Your task to perform on an android device: clear history in the chrome app Image 0: 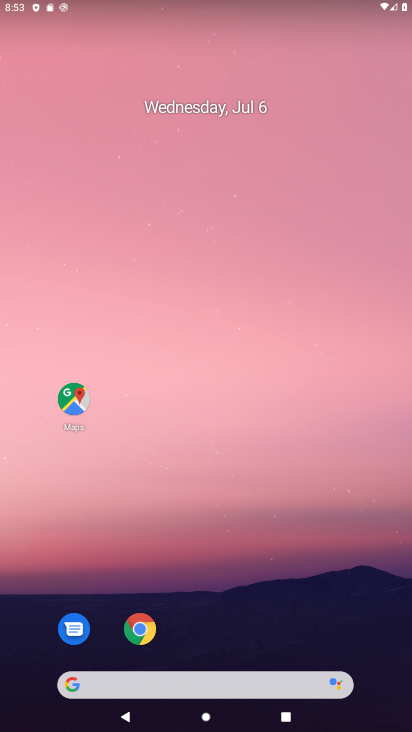
Step 0: drag from (244, 611) to (248, 176)
Your task to perform on an android device: clear history in the chrome app Image 1: 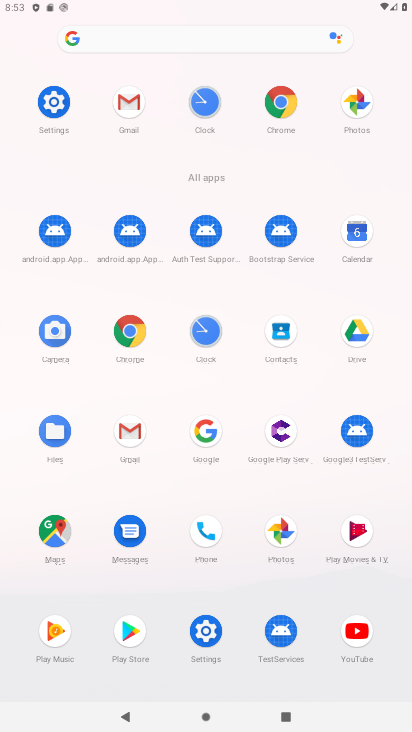
Step 1: click (133, 332)
Your task to perform on an android device: clear history in the chrome app Image 2: 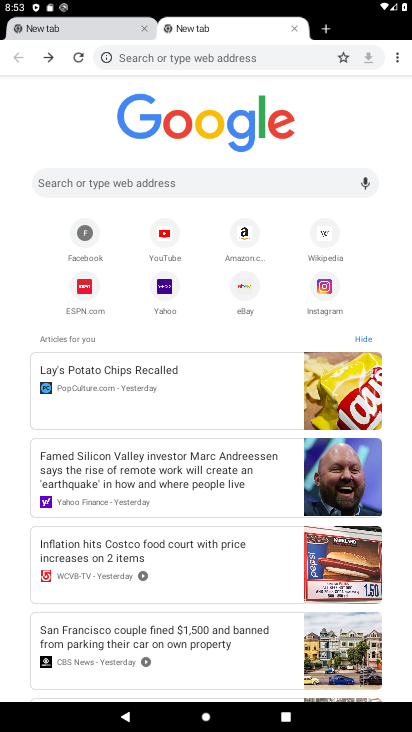
Step 2: click (397, 56)
Your task to perform on an android device: clear history in the chrome app Image 3: 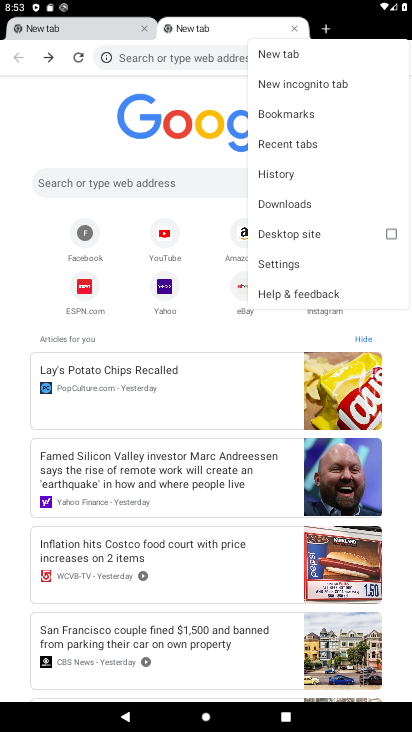
Step 3: click (288, 174)
Your task to perform on an android device: clear history in the chrome app Image 4: 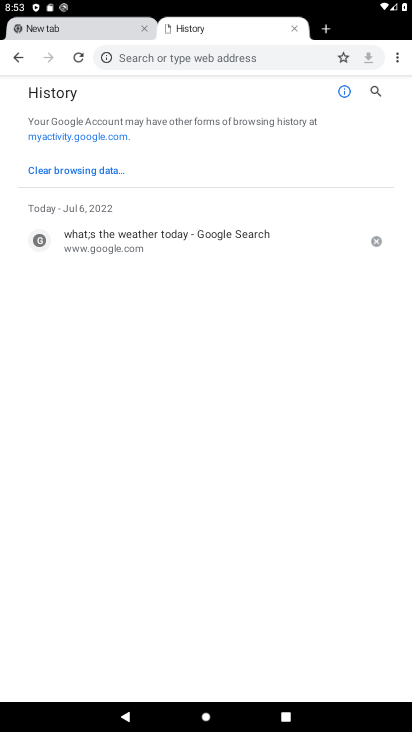
Step 4: click (78, 173)
Your task to perform on an android device: clear history in the chrome app Image 5: 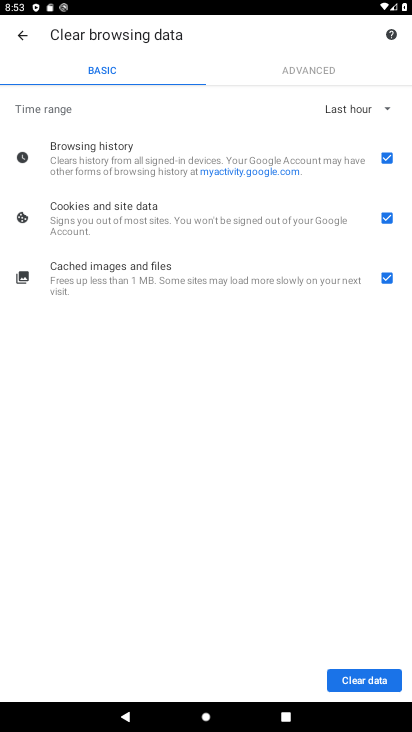
Step 5: click (387, 209)
Your task to perform on an android device: clear history in the chrome app Image 6: 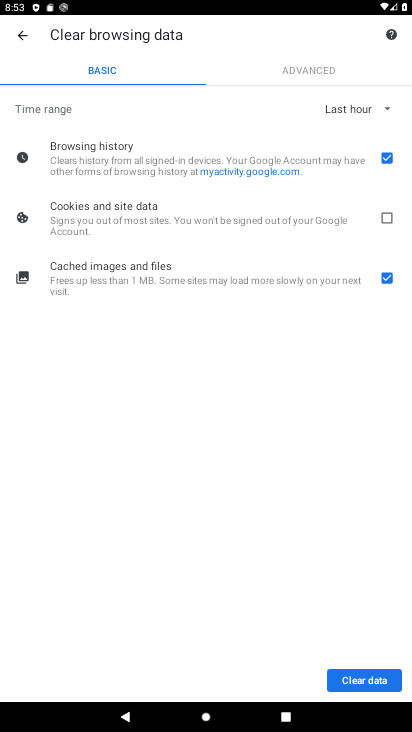
Step 6: click (387, 277)
Your task to perform on an android device: clear history in the chrome app Image 7: 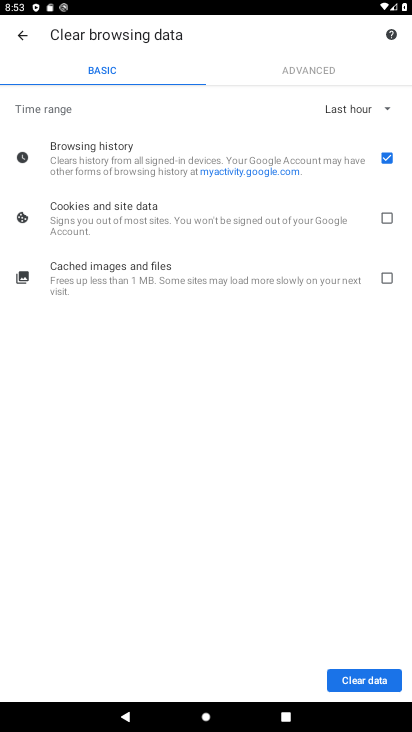
Step 7: click (361, 681)
Your task to perform on an android device: clear history in the chrome app Image 8: 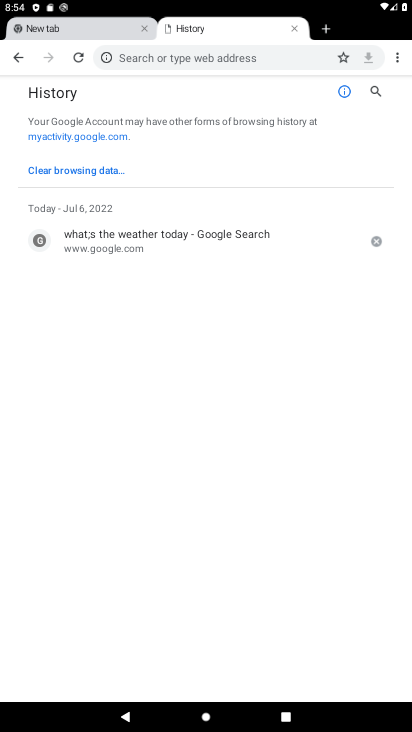
Step 8: task complete